Your task to perform on an android device: Play the last video I watched on Youtube Image 0: 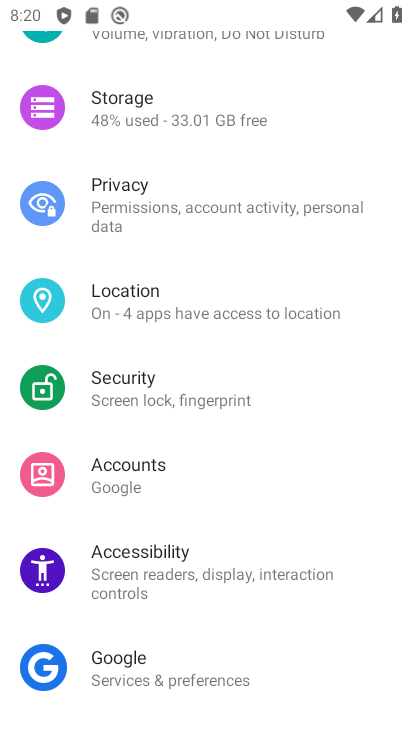
Step 0: press home button
Your task to perform on an android device: Play the last video I watched on Youtube Image 1: 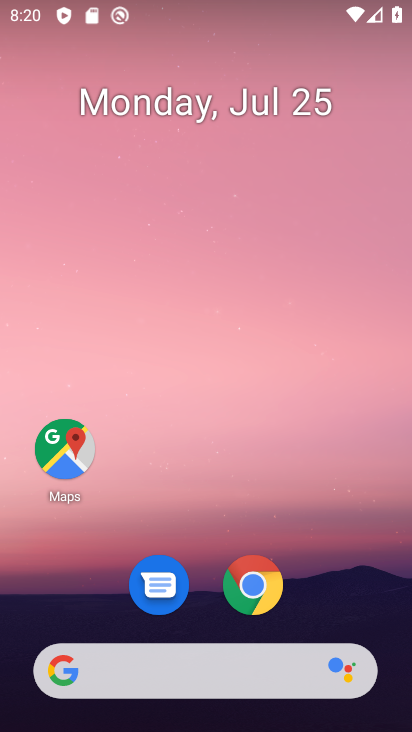
Step 1: drag from (215, 684) to (264, 196)
Your task to perform on an android device: Play the last video I watched on Youtube Image 2: 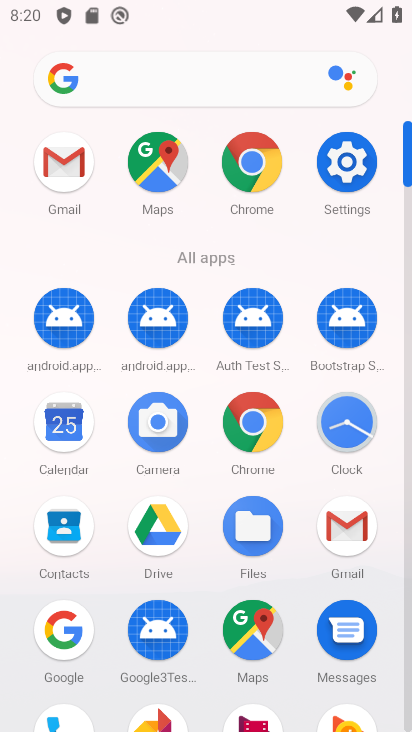
Step 2: drag from (300, 646) to (319, 250)
Your task to perform on an android device: Play the last video I watched on Youtube Image 3: 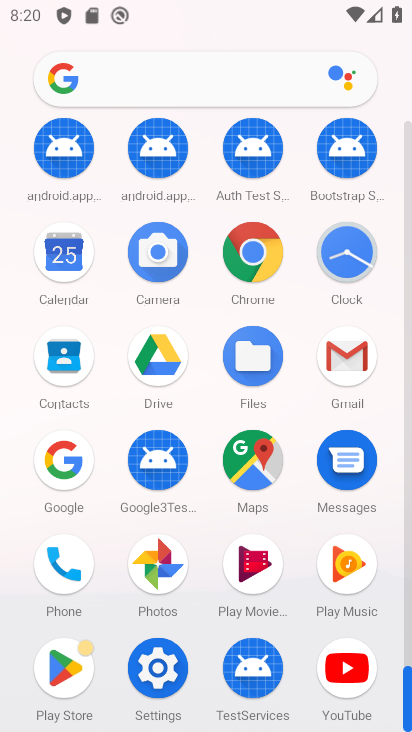
Step 3: click (351, 657)
Your task to perform on an android device: Play the last video I watched on Youtube Image 4: 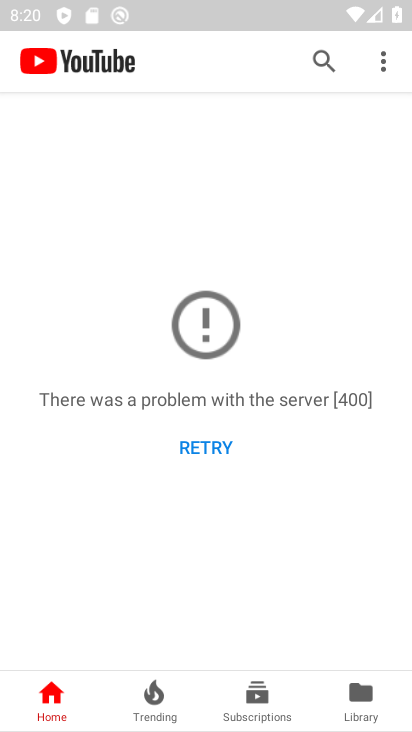
Step 4: click (204, 439)
Your task to perform on an android device: Play the last video I watched on Youtube Image 5: 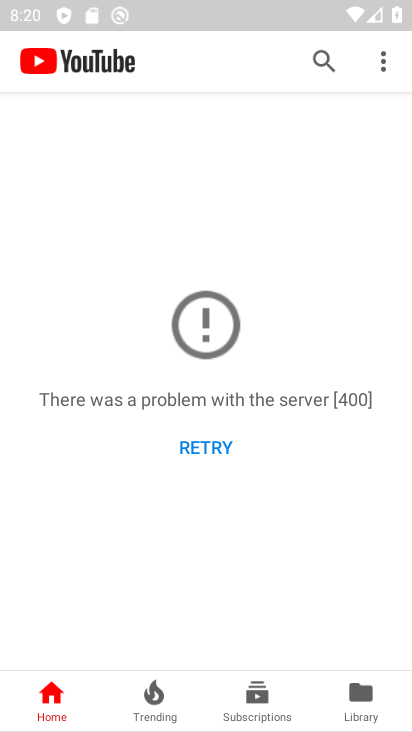
Step 5: click (213, 448)
Your task to perform on an android device: Play the last video I watched on Youtube Image 6: 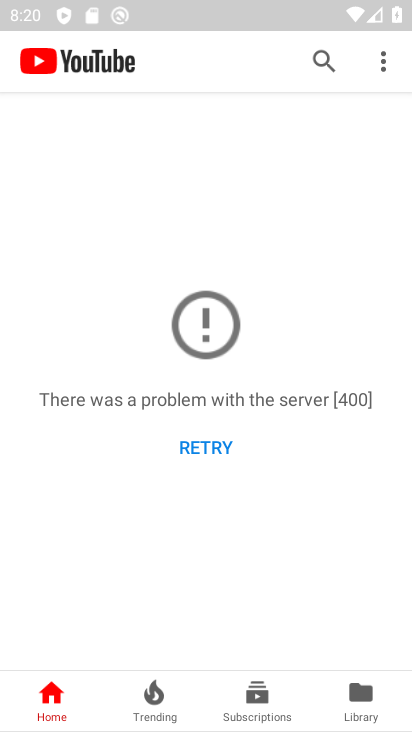
Step 6: task complete